Your task to perform on an android device: Open Android settings Image 0: 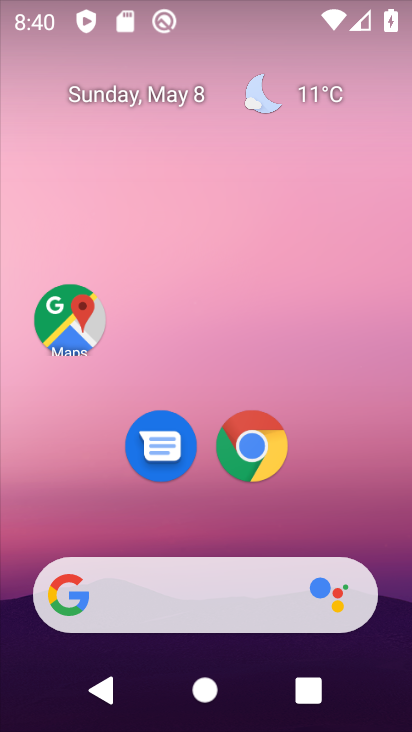
Step 0: drag from (366, 513) to (338, 6)
Your task to perform on an android device: Open Android settings Image 1: 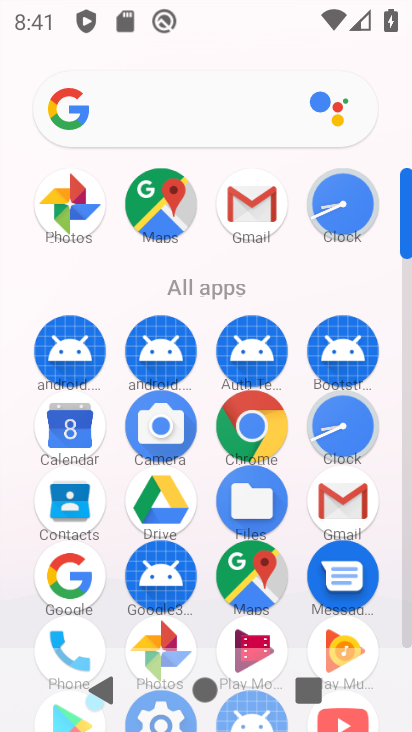
Step 1: drag from (403, 236) to (411, 325)
Your task to perform on an android device: Open Android settings Image 2: 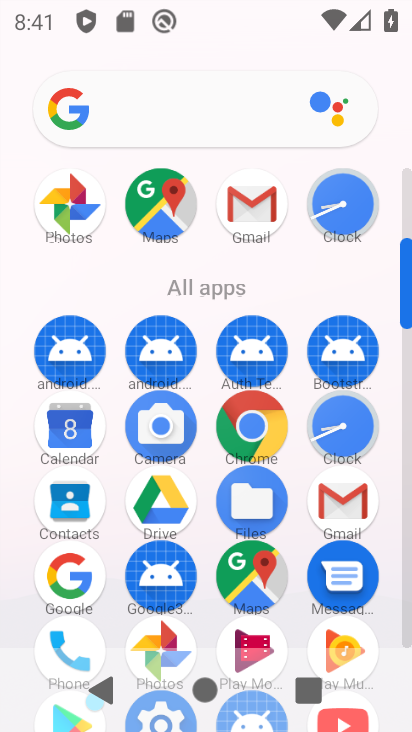
Step 2: drag from (407, 316) to (281, 683)
Your task to perform on an android device: Open Android settings Image 3: 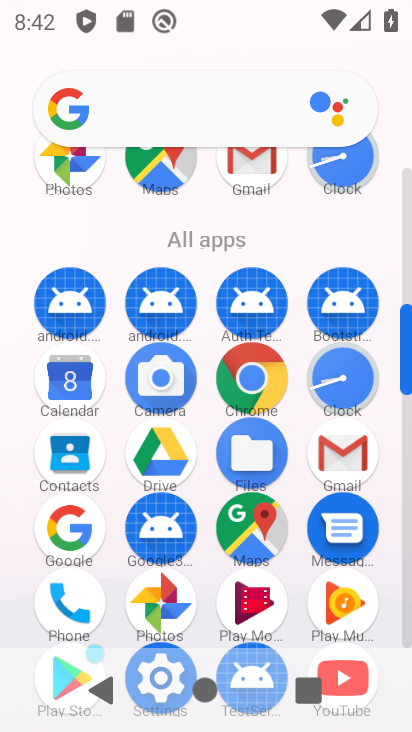
Step 3: drag from (403, 361) to (407, 496)
Your task to perform on an android device: Open Android settings Image 4: 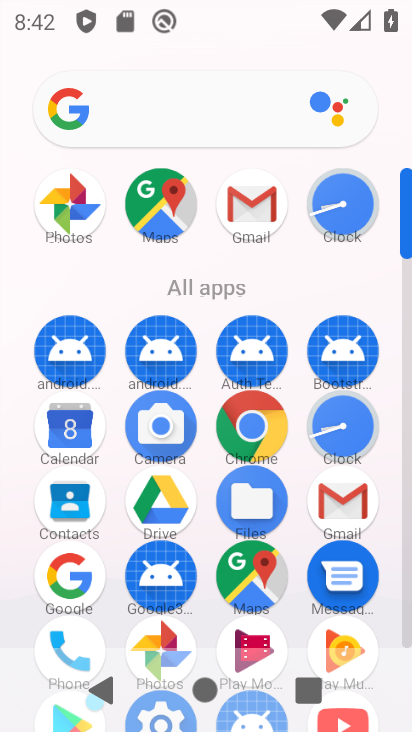
Step 4: click (404, 550)
Your task to perform on an android device: Open Android settings Image 5: 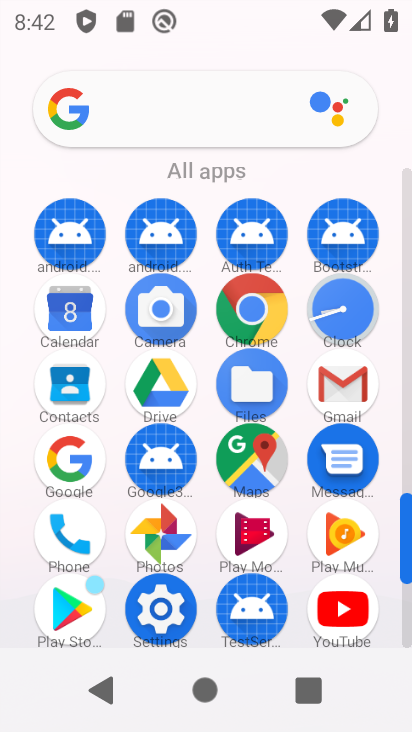
Step 5: click (163, 608)
Your task to perform on an android device: Open Android settings Image 6: 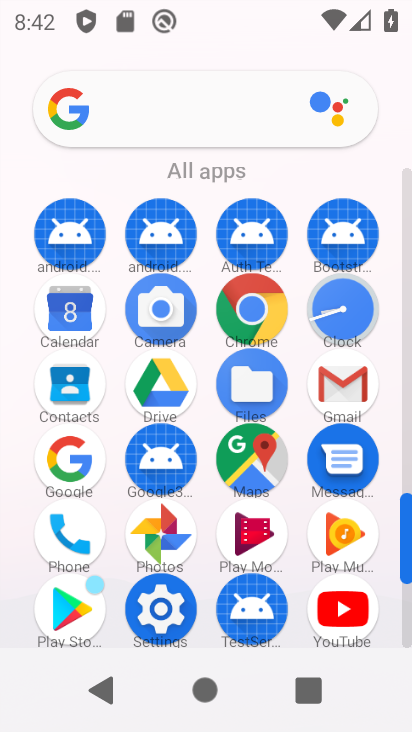
Step 6: click (163, 608)
Your task to perform on an android device: Open Android settings Image 7: 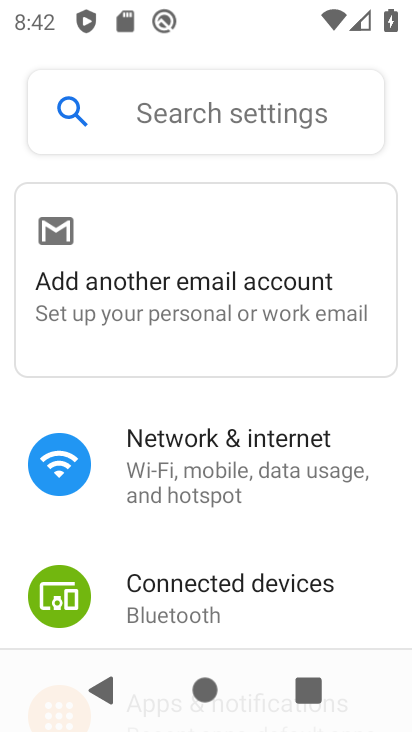
Step 7: drag from (340, 612) to (319, 187)
Your task to perform on an android device: Open Android settings Image 8: 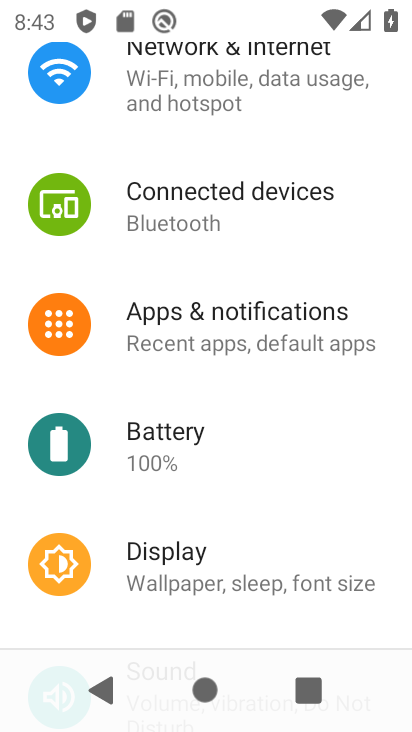
Step 8: drag from (289, 586) to (267, 135)
Your task to perform on an android device: Open Android settings Image 9: 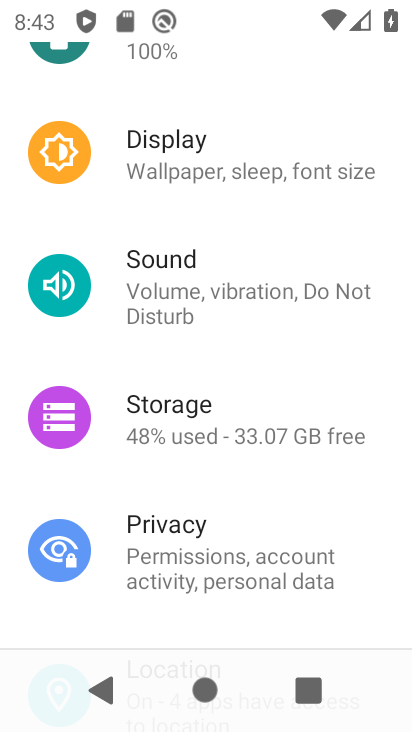
Step 9: drag from (311, 624) to (290, 166)
Your task to perform on an android device: Open Android settings Image 10: 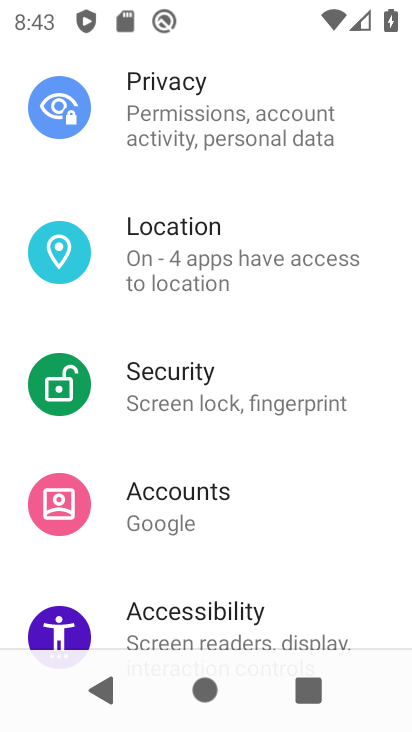
Step 10: drag from (325, 682) to (280, 6)
Your task to perform on an android device: Open Android settings Image 11: 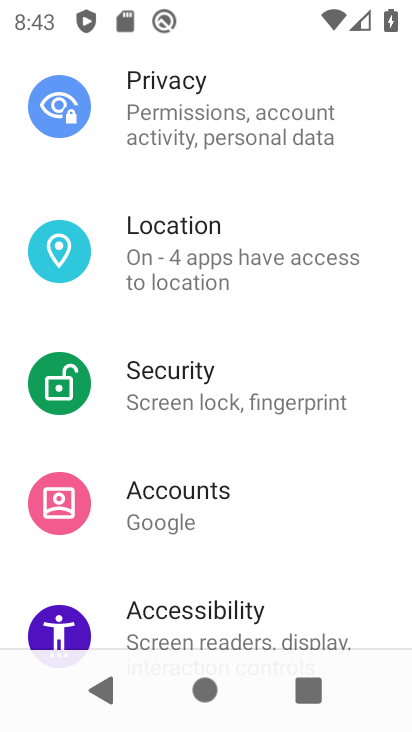
Step 11: drag from (302, 634) to (215, 129)
Your task to perform on an android device: Open Android settings Image 12: 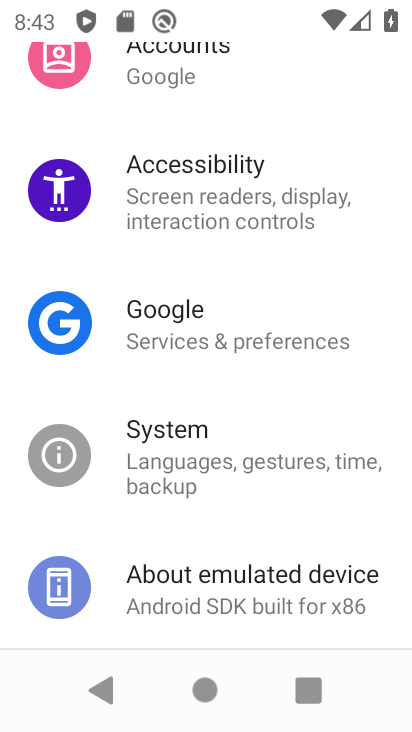
Step 12: drag from (266, 477) to (226, 10)
Your task to perform on an android device: Open Android settings Image 13: 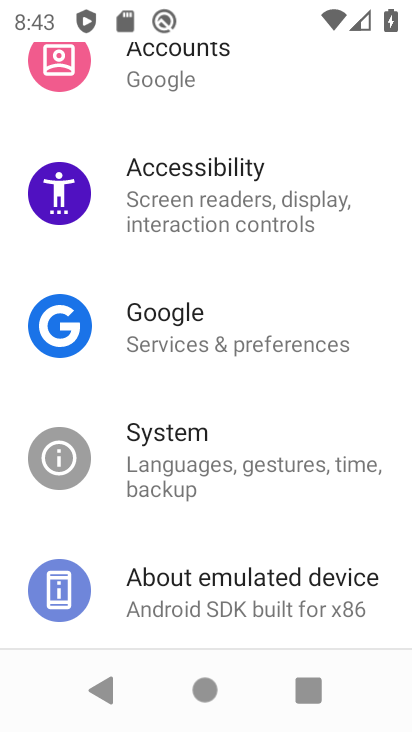
Step 13: click (273, 605)
Your task to perform on an android device: Open Android settings Image 14: 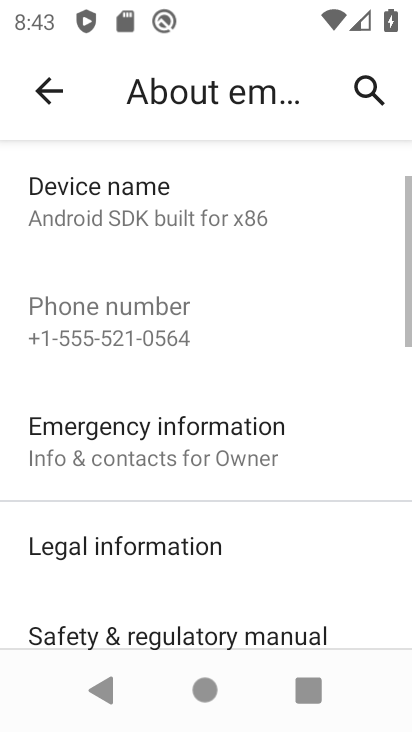
Step 14: drag from (277, 603) to (253, 357)
Your task to perform on an android device: Open Android settings Image 15: 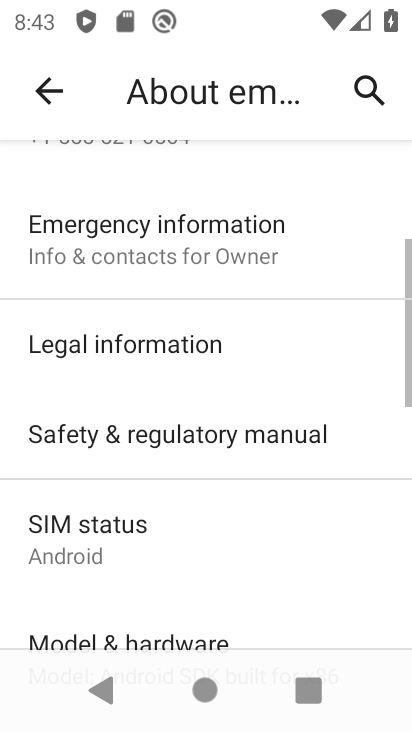
Step 15: drag from (255, 607) to (235, 189)
Your task to perform on an android device: Open Android settings Image 16: 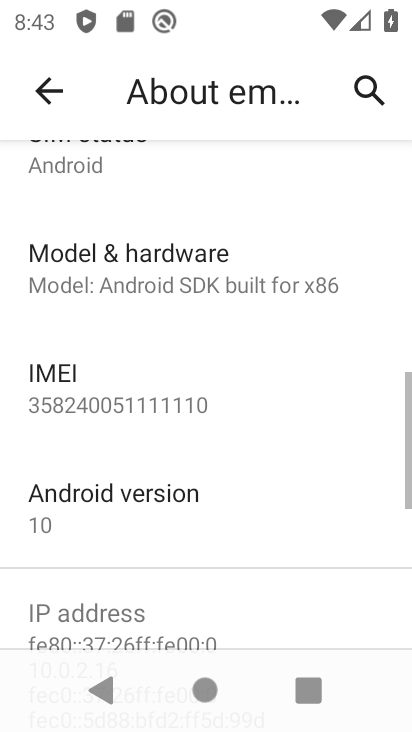
Step 16: click (185, 504)
Your task to perform on an android device: Open Android settings Image 17: 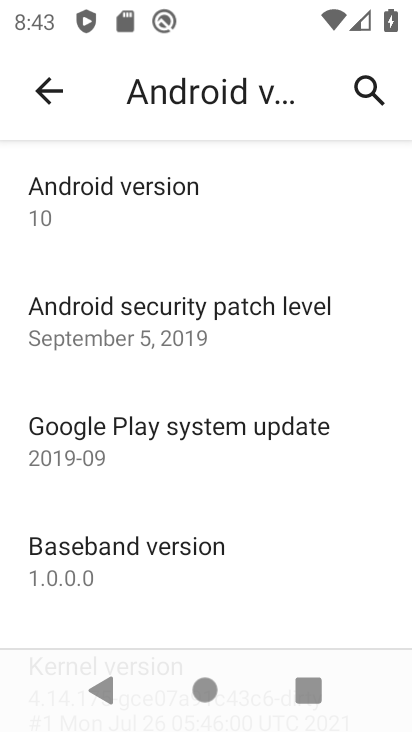
Step 17: task complete